Your task to perform on an android device: Open location settings Image 0: 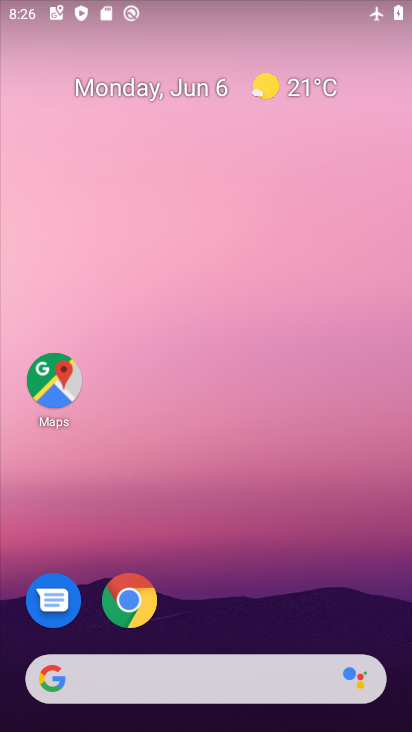
Step 0: drag from (364, 611) to (286, 29)
Your task to perform on an android device: Open location settings Image 1: 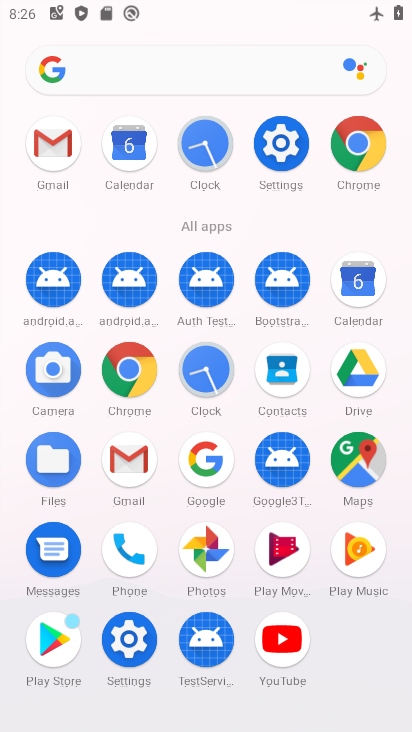
Step 1: click (127, 637)
Your task to perform on an android device: Open location settings Image 2: 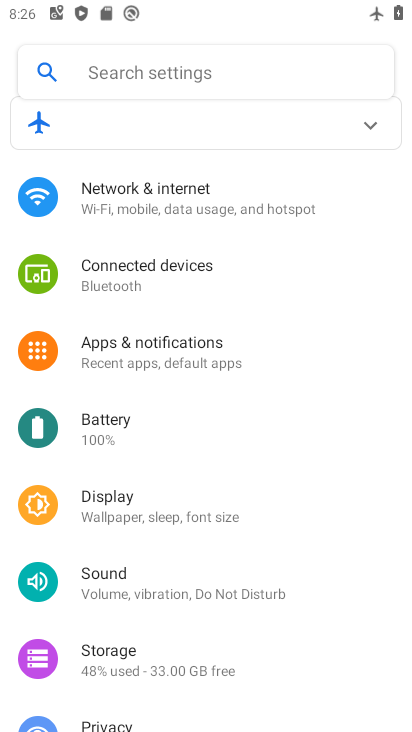
Step 2: drag from (312, 662) to (341, 201)
Your task to perform on an android device: Open location settings Image 3: 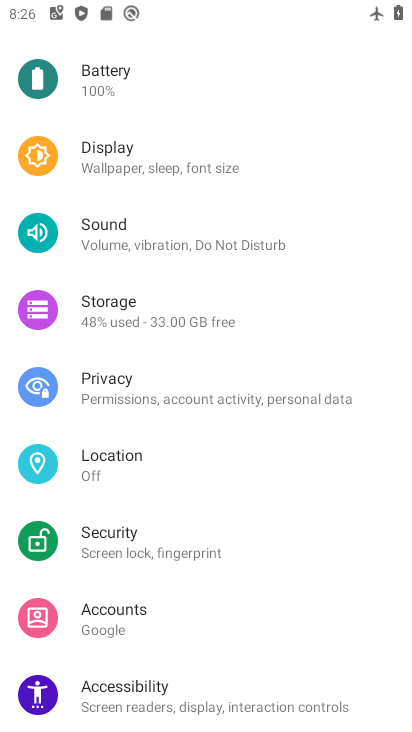
Step 3: click (106, 455)
Your task to perform on an android device: Open location settings Image 4: 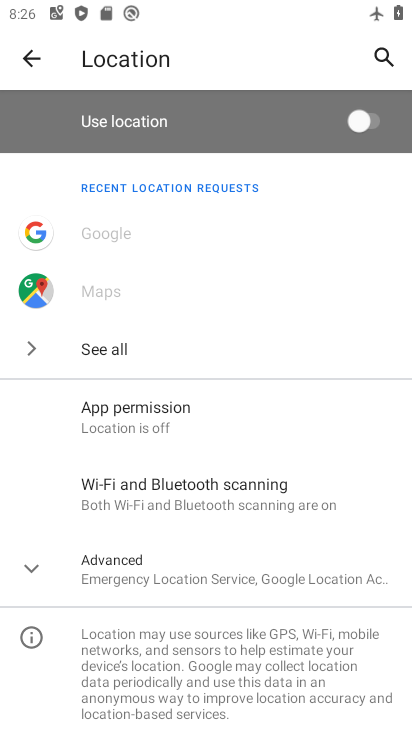
Step 4: task complete